Your task to perform on an android device: change timer sound Image 0: 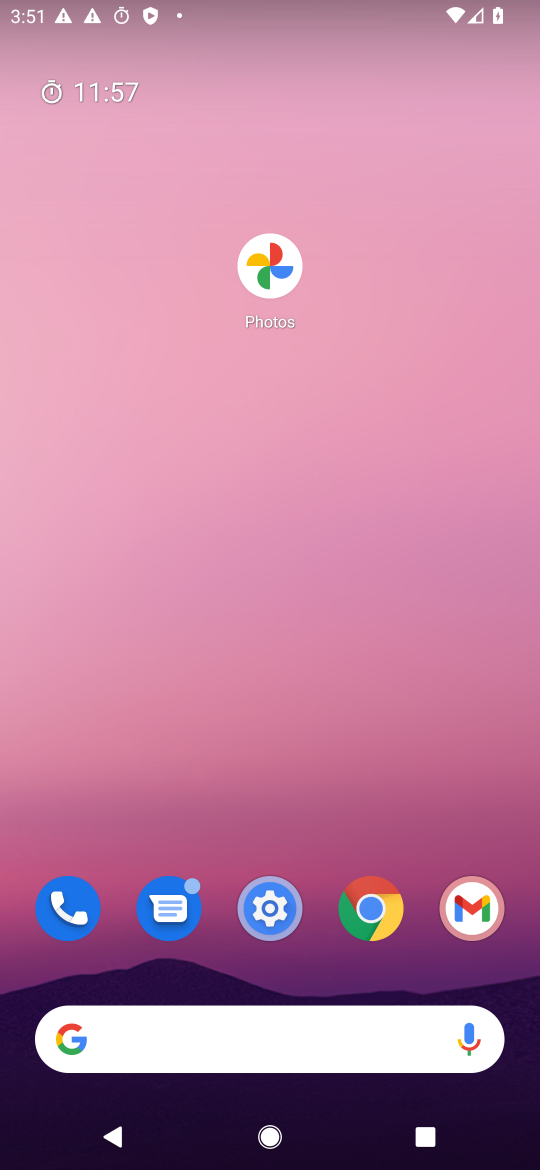
Step 0: drag from (215, 974) to (281, 138)
Your task to perform on an android device: change timer sound Image 1: 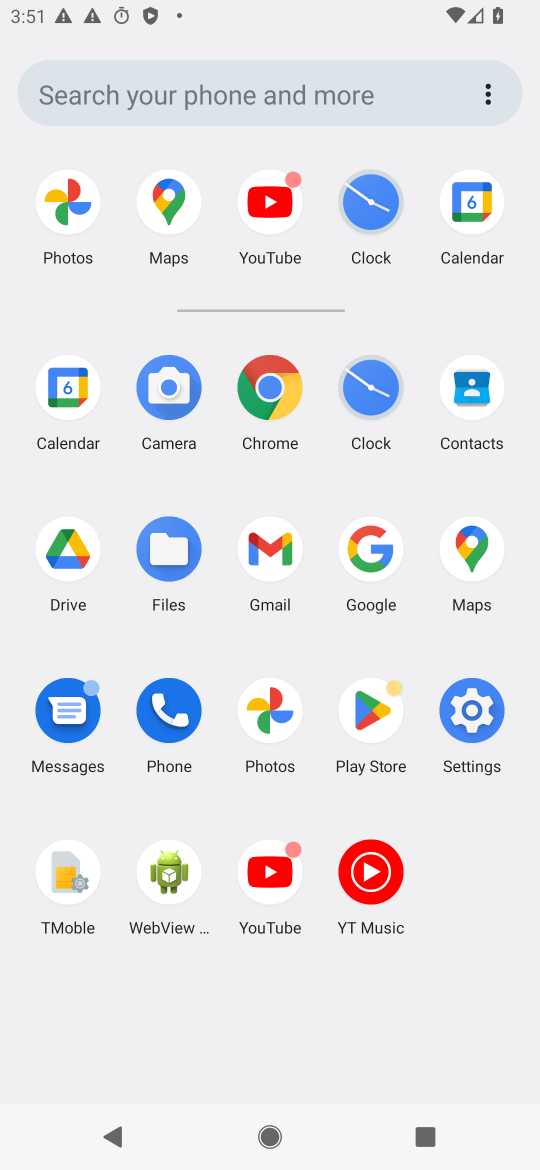
Step 1: click (381, 413)
Your task to perform on an android device: change timer sound Image 2: 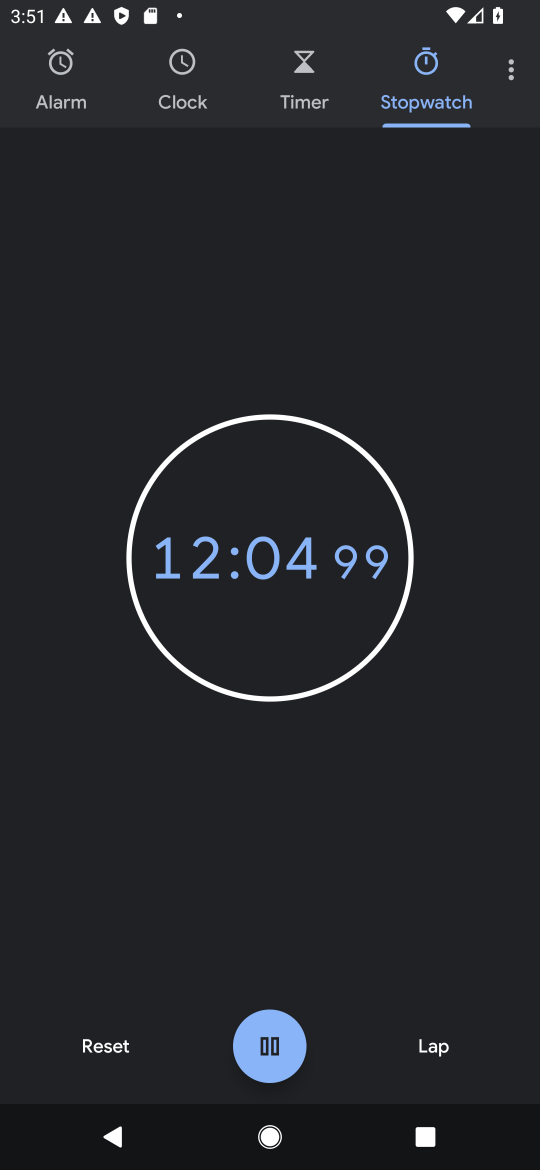
Step 2: click (112, 1051)
Your task to perform on an android device: change timer sound Image 3: 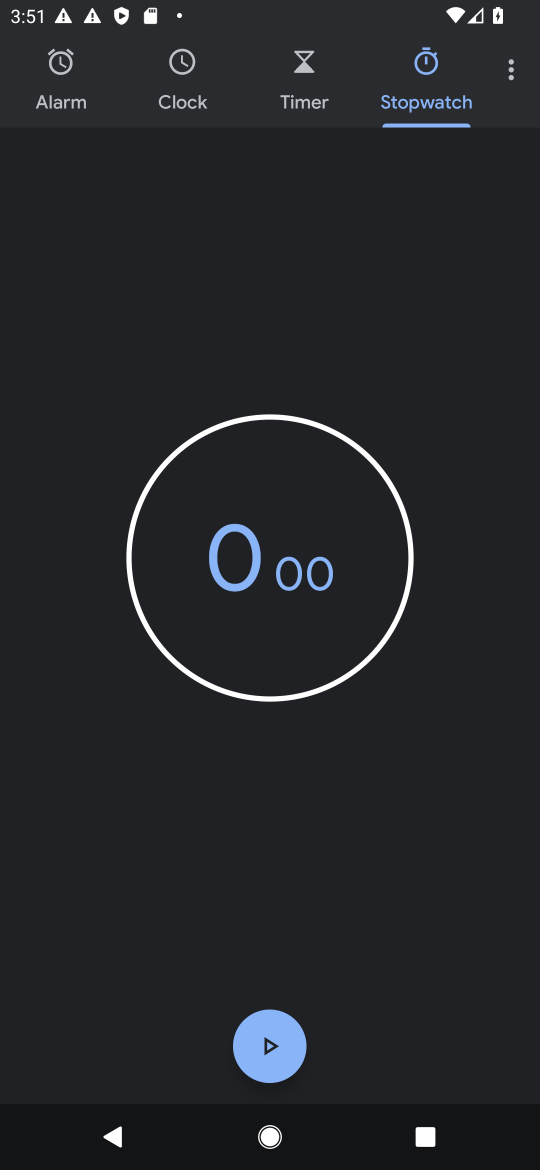
Step 3: click (503, 81)
Your task to perform on an android device: change timer sound Image 4: 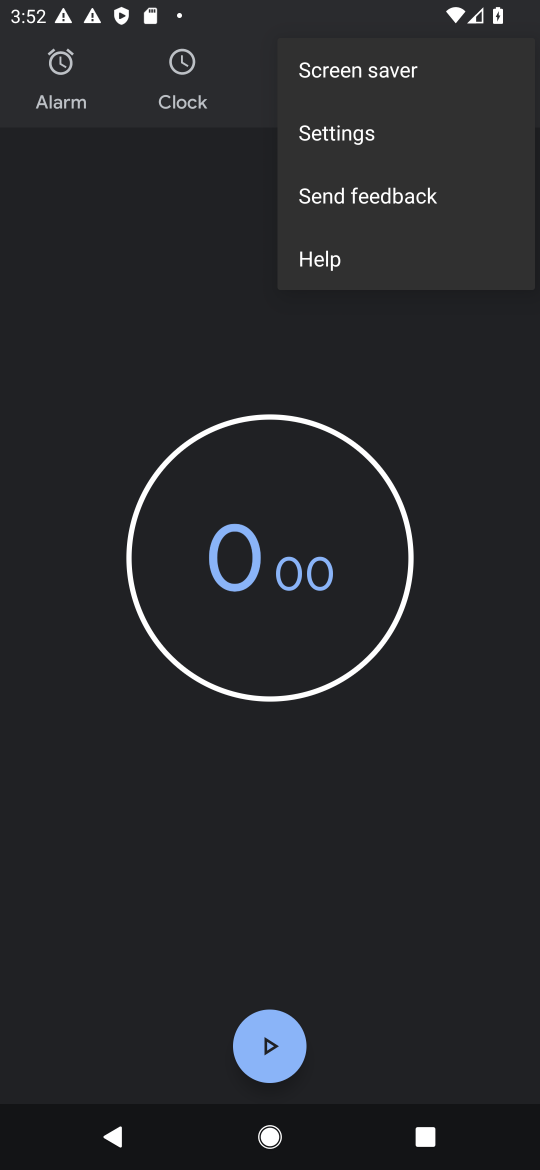
Step 4: click (361, 133)
Your task to perform on an android device: change timer sound Image 5: 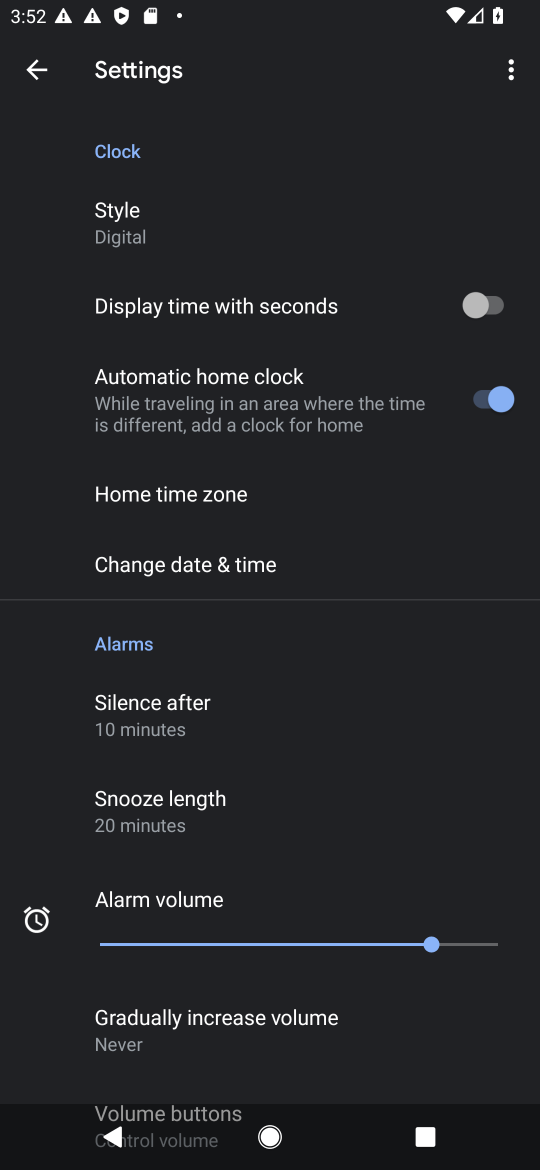
Step 5: drag from (189, 815) to (233, 504)
Your task to perform on an android device: change timer sound Image 6: 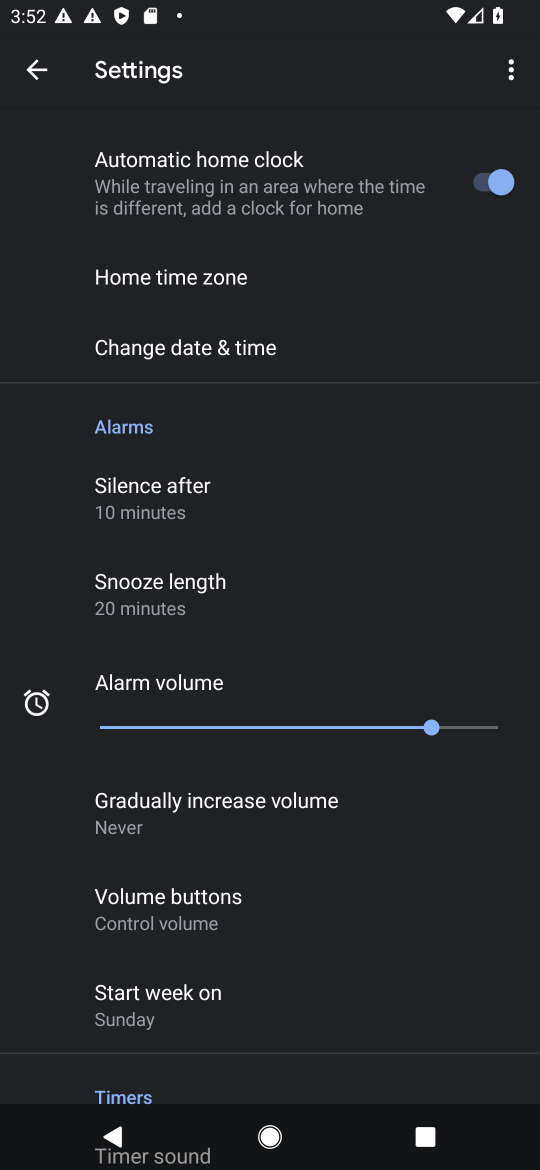
Step 6: drag from (201, 931) to (250, 565)
Your task to perform on an android device: change timer sound Image 7: 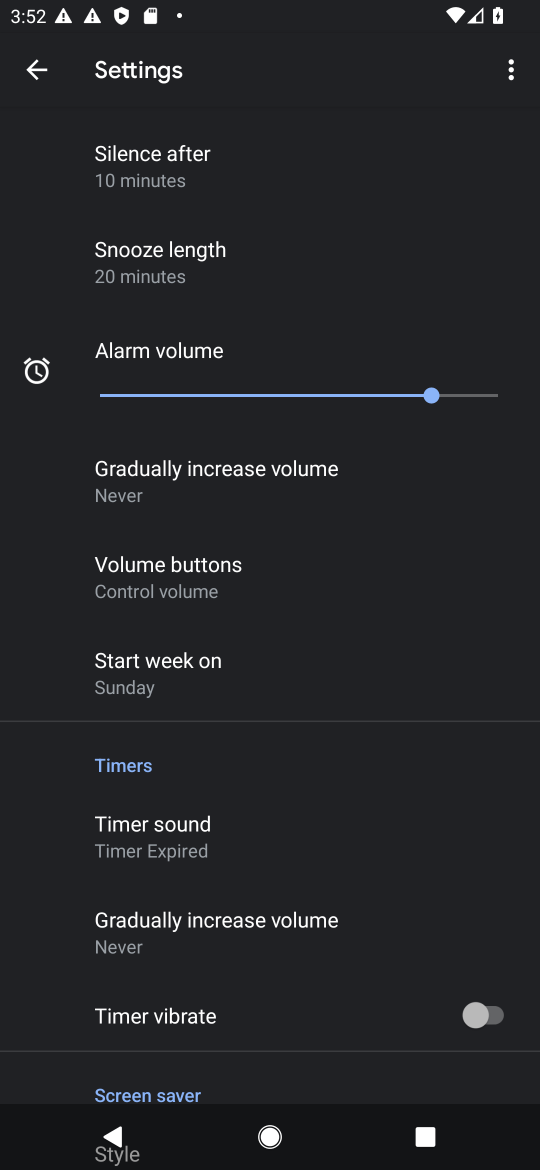
Step 7: click (168, 850)
Your task to perform on an android device: change timer sound Image 8: 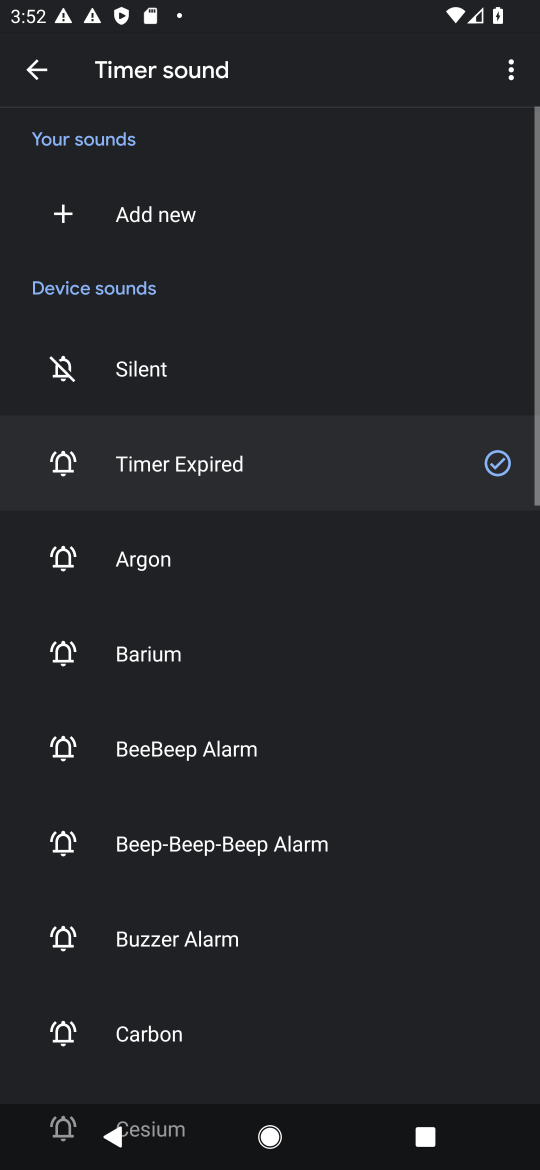
Step 8: click (134, 579)
Your task to perform on an android device: change timer sound Image 9: 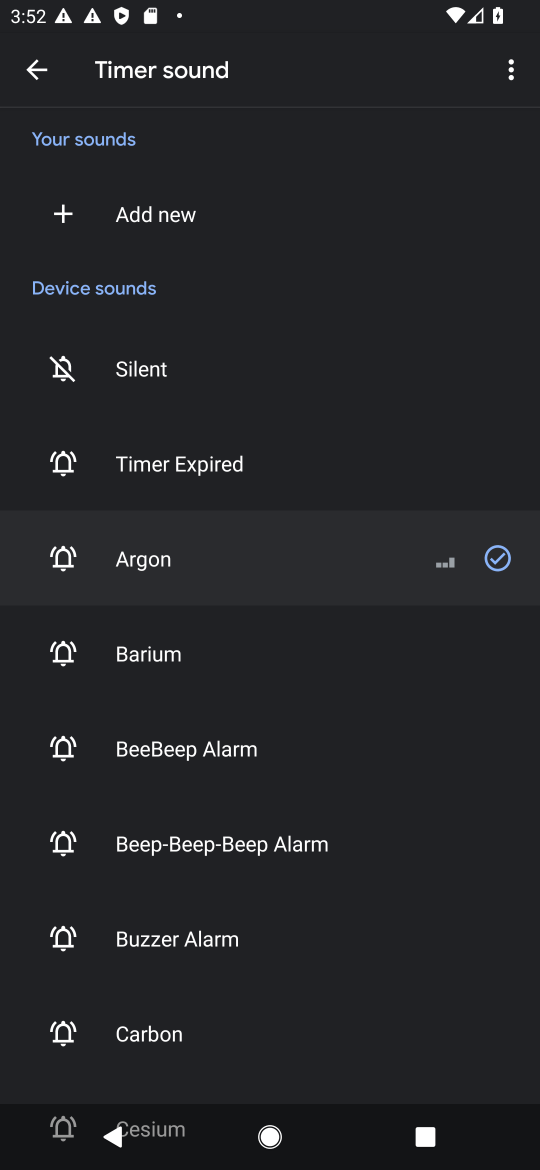
Step 9: task complete